Your task to perform on an android device: toggle notifications settings in the gmail app Image 0: 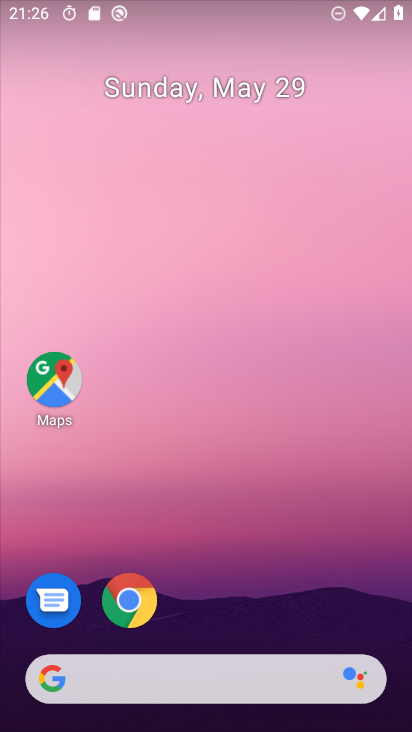
Step 0: drag from (340, 601) to (307, 57)
Your task to perform on an android device: toggle notifications settings in the gmail app Image 1: 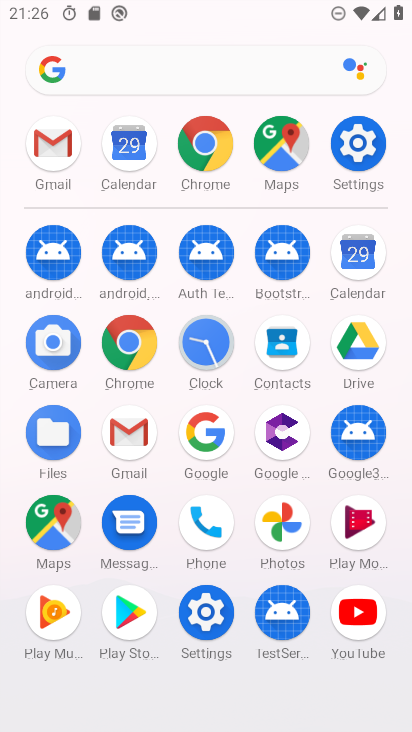
Step 1: click (120, 442)
Your task to perform on an android device: toggle notifications settings in the gmail app Image 2: 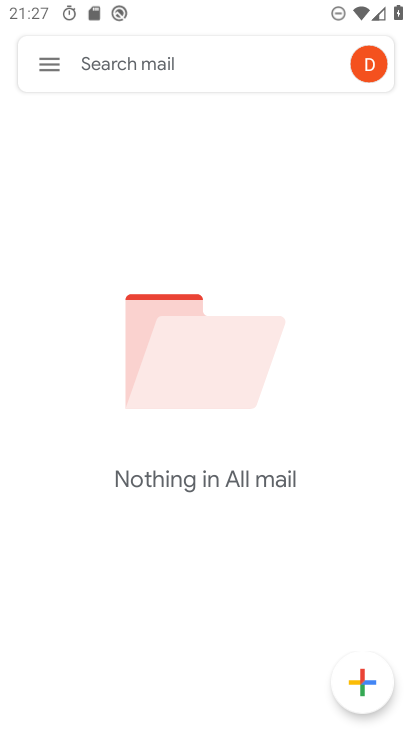
Step 2: click (52, 66)
Your task to perform on an android device: toggle notifications settings in the gmail app Image 3: 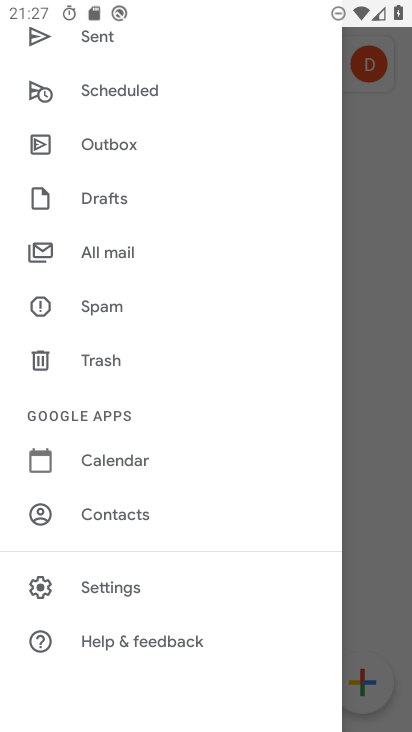
Step 3: click (154, 581)
Your task to perform on an android device: toggle notifications settings in the gmail app Image 4: 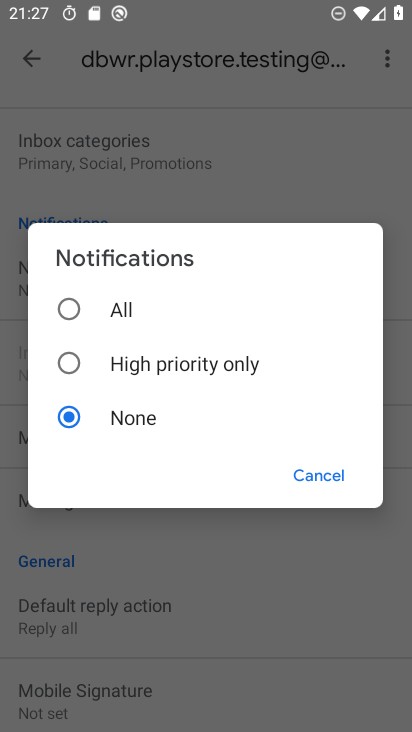
Step 4: click (67, 312)
Your task to perform on an android device: toggle notifications settings in the gmail app Image 5: 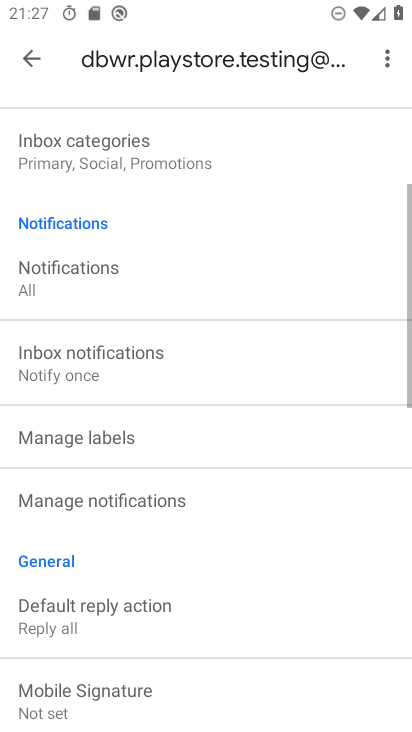
Step 5: task complete